Your task to perform on an android device: toggle priority inbox in the gmail app Image 0: 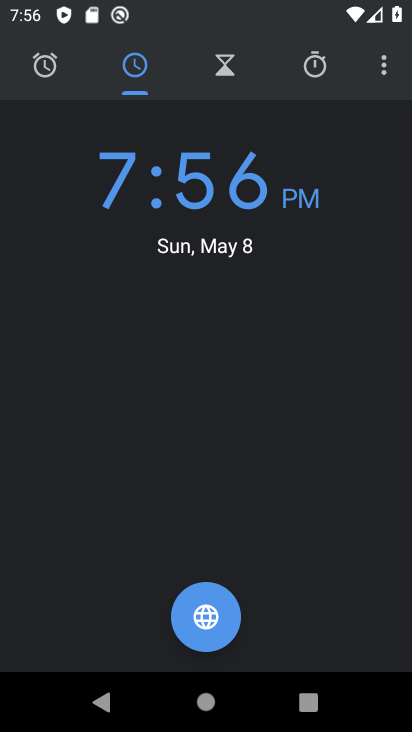
Step 0: press back button
Your task to perform on an android device: toggle priority inbox in the gmail app Image 1: 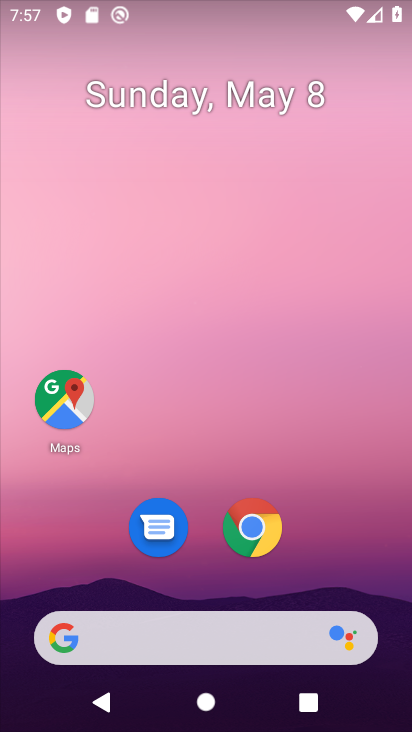
Step 1: drag from (310, 557) to (238, 0)
Your task to perform on an android device: toggle priority inbox in the gmail app Image 2: 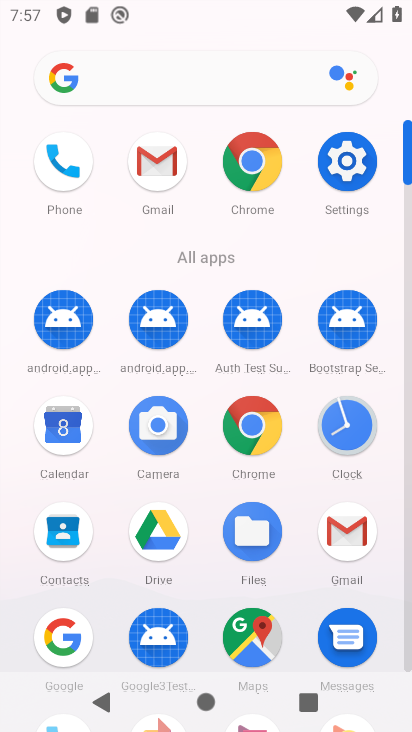
Step 2: click (155, 156)
Your task to perform on an android device: toggle priority inbox in the gmail app Image 3: 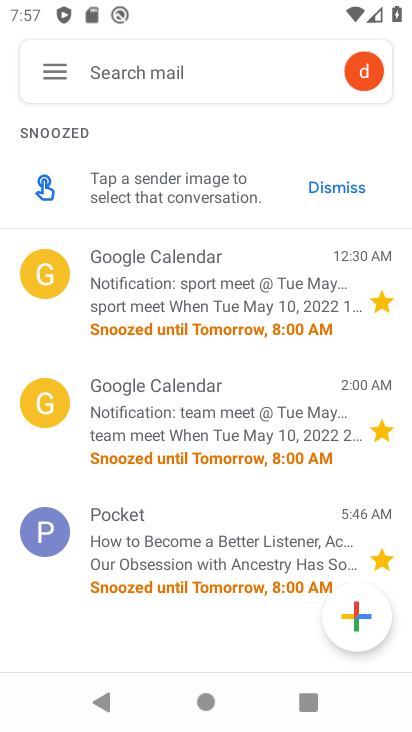
Step 3: click (53, 61)
Your task to perform on an android device: toggle priority inbox in the gmail app Image 4: 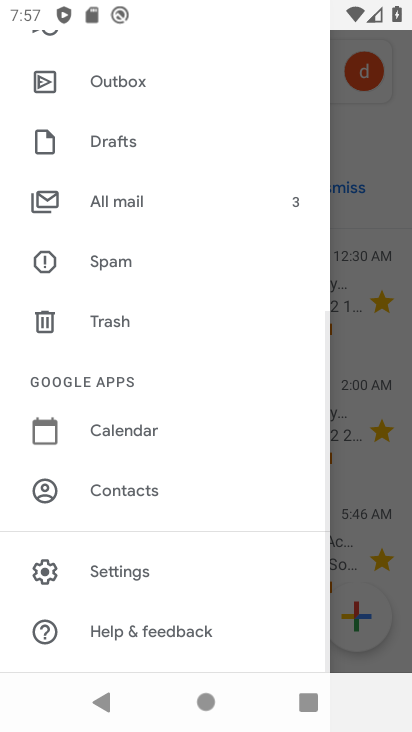
Step 4: drag from (165, 509) to (179, 65)
Your task to perform on an android device: toggle priority inbox in the gmail app Image 5: 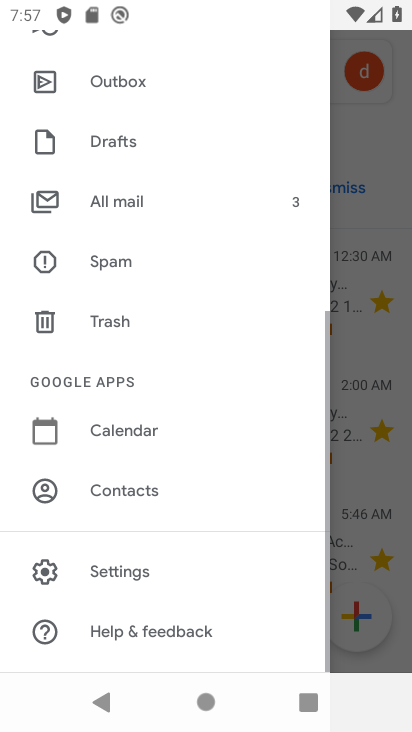
Step 5: click (115, 572)
Your task to perform on an android device: toggle priority inbox in the gmail app Image 6: 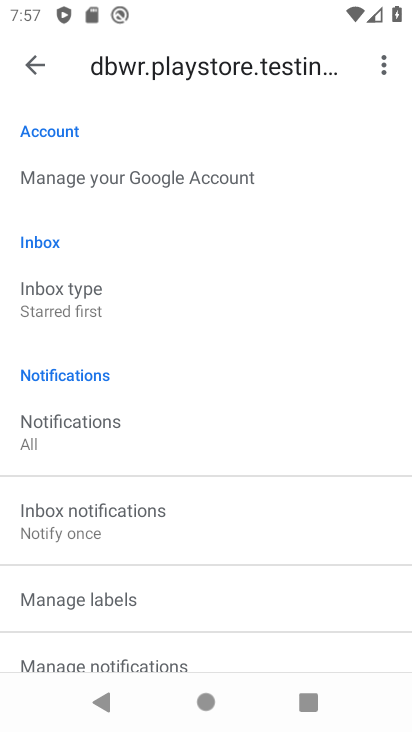
Step 6: click (106, 291)
Your task to perform on an android device: toggle priority inbox in the gmail app Image 7: 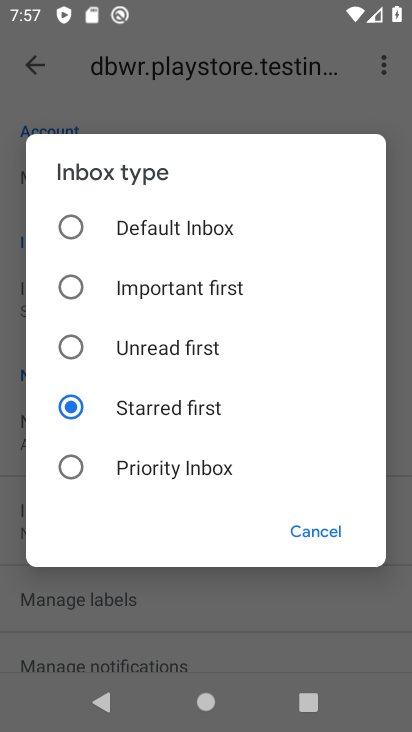
Step 7: click (157, 468)
Your task to perform on an android device: toggle priority inbox in the gmail app Image 8: 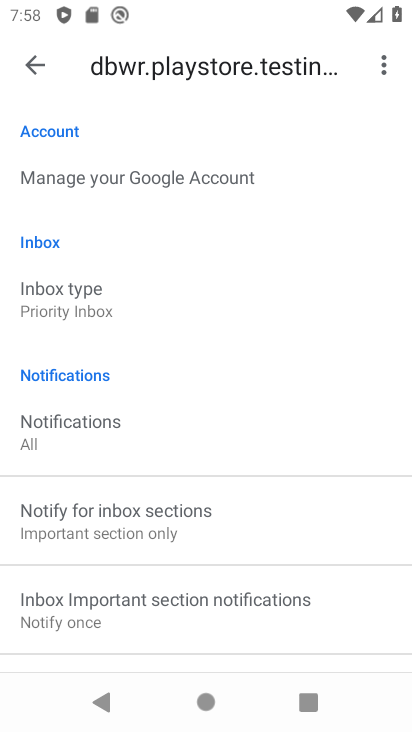
Step 8: task complete